Your task to perform on an android device: change the clock display to analog Image 0: 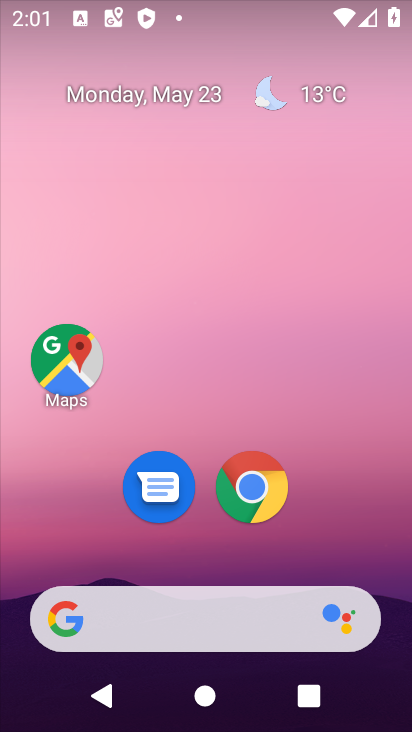
Step 0: drag from (408, 628) to (350, 81)
Your task to perform on an android device: change the clock display to analog Image 1: 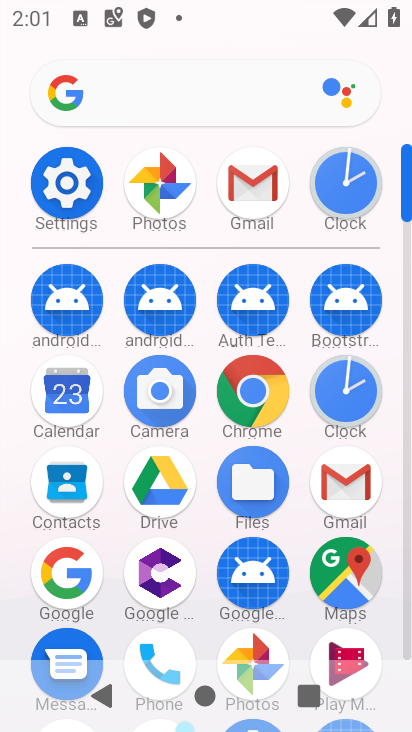
Step 1: click (344, 394)
Your task to perform on an android device: change the clock display to analog Image 2: 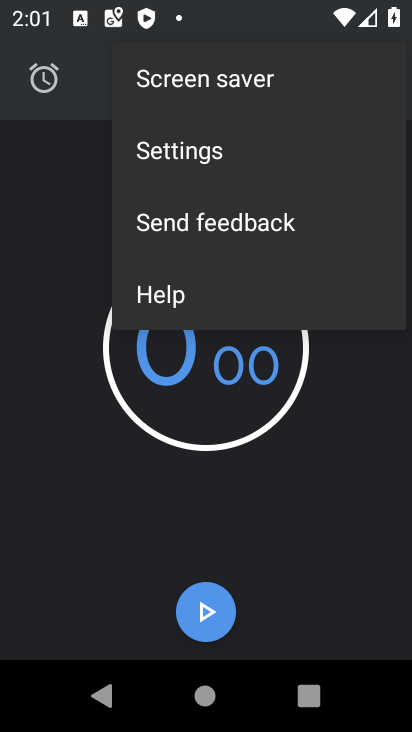
Step 2: click (162, 153)
Your task to perform on an android device: change the clock display to analog Image 3: 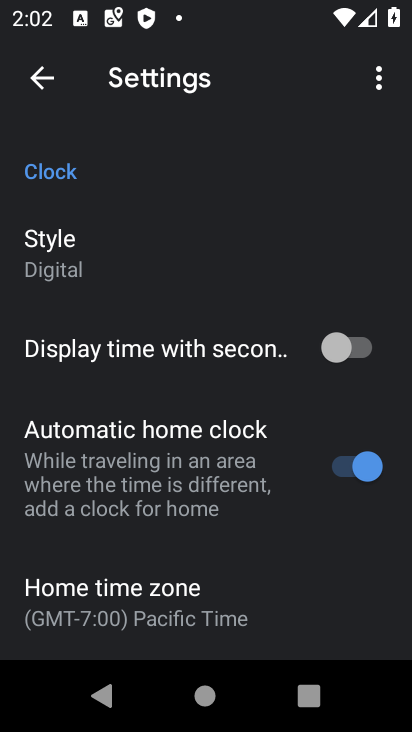
Step 3: click (48, 257)
Your task to perform on an android device: change the clock display to analog Image 4: 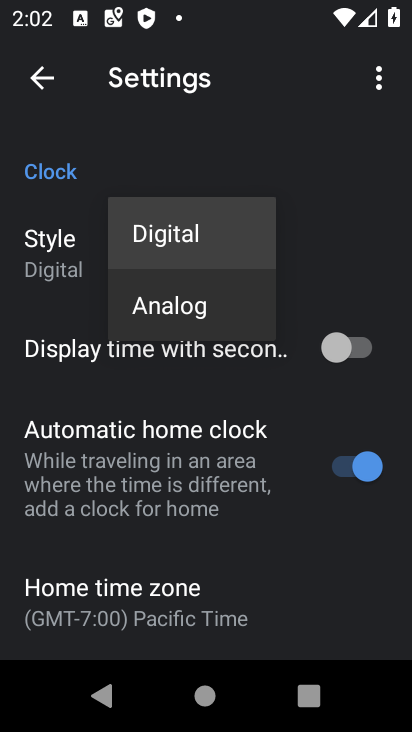
Step 4: click (157, 305)
Your task to perform on an android device: change the clock display to analog Image 5: 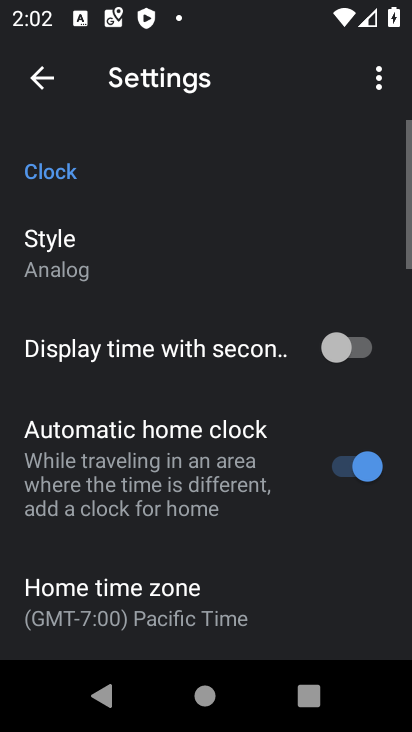
Step 5: task complete